Your task to perform on an android device: Is it going to rain tomorrow? Image 0: 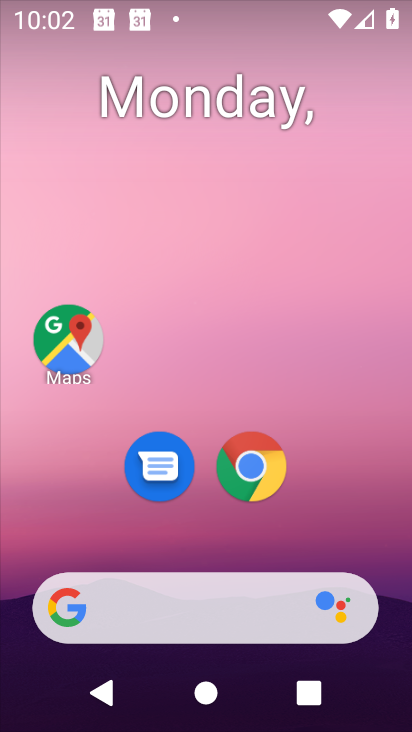
Step 0: drag from (1, 137) to (377, 133)
Your task to perform on an android device: Is it going to rain tomorrow? Image 1: 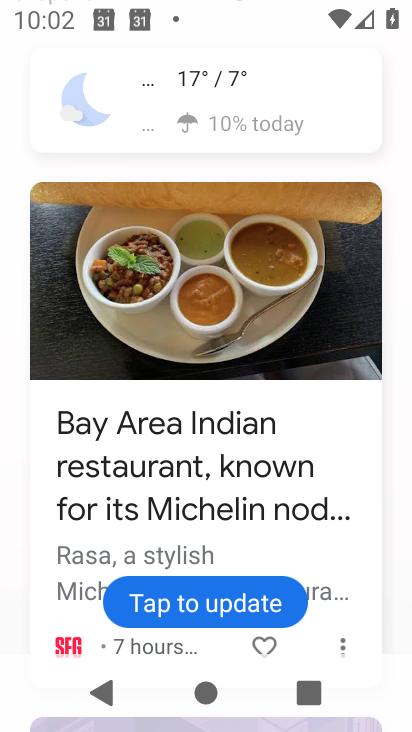
Step 1: click (212, 93)
Your task to perform on an android device: Is it going to rain tomorrow? Image 2: 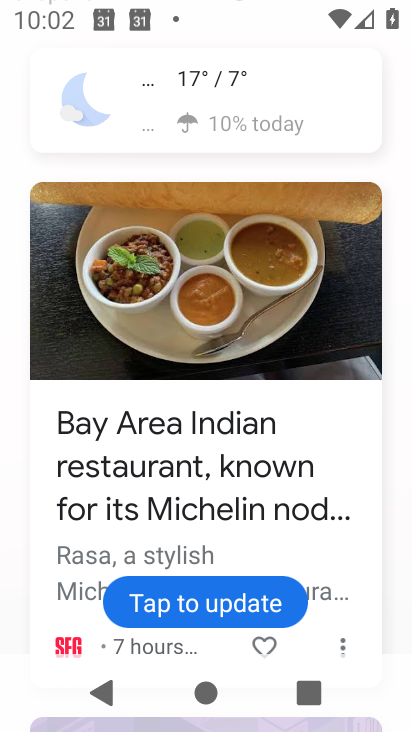
Step 2: click (209, 93)
Your task to perform on an android device: Is it going to rain tomorrow? Image 3: 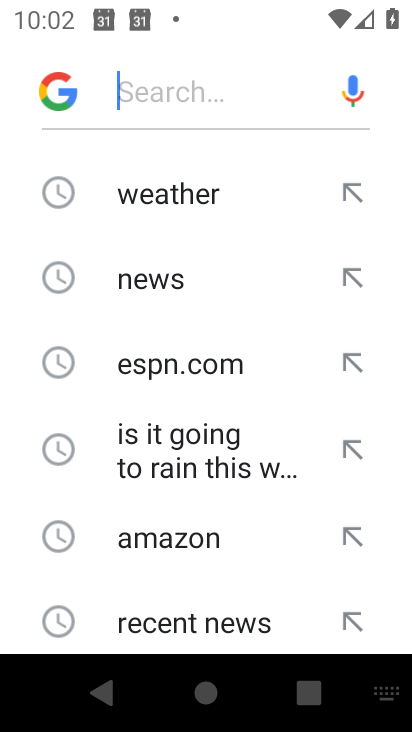
Step 3: click (167, 188)
Your task to perform on an android device: Is it going to rain tomorrow? Image 4: 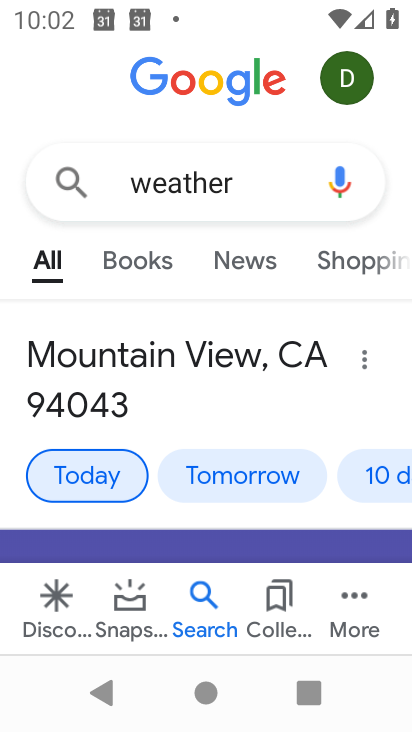
Step 4: click (251, 480)
Your task to perform on an android device: Is it going to rain tomorrow? Image 5: 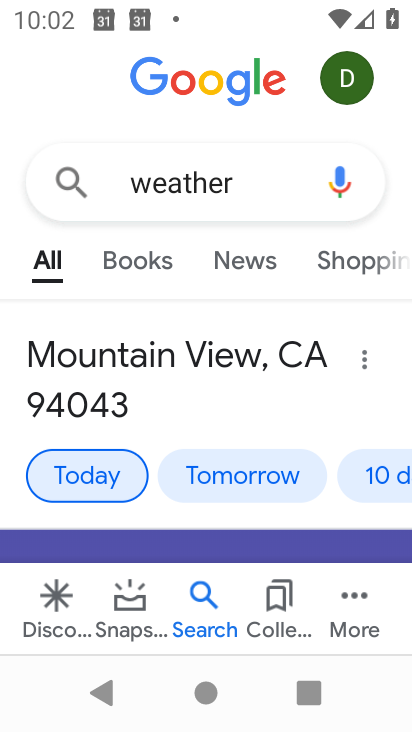
Step 5: click (290, 499)
Your task to perform on an android device: Is it going to rain tomorrow? Image 6: 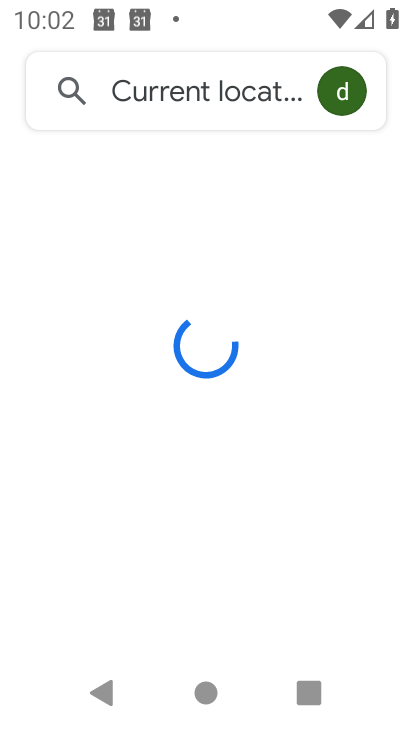
Step 6: click (290, 501)
Your task to perform on an android device: Is it going to rain tomorrow? Image 7: 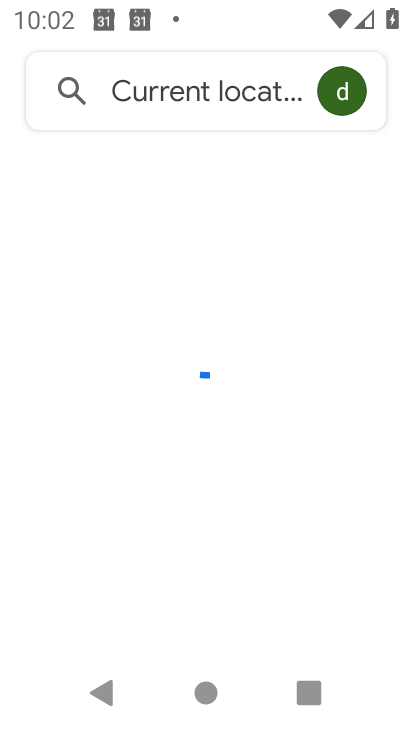
Step 7: click (250, 479)
Your task to perform on an android device: Is it going to rain tomorrow? Image 8: 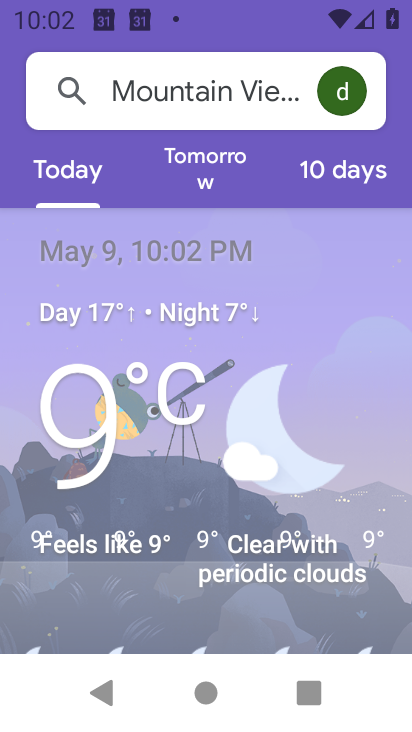
Step 8: click (250, 479)
Your task to perform on an android device: Is it going to rain tomorrow? Image 9: 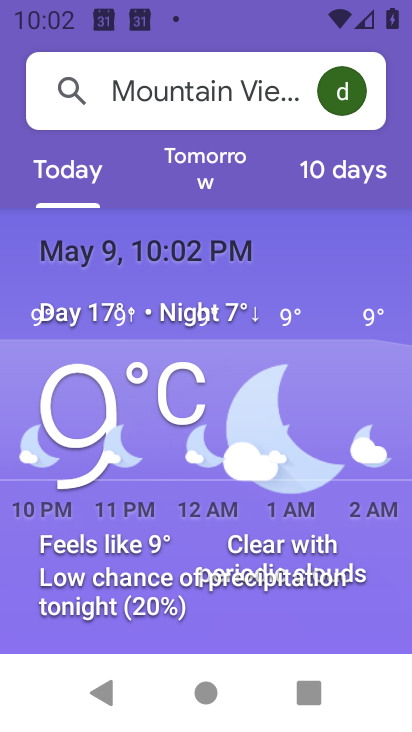
Step 9: task complete